Your task to perform on an android device: see sites visited before in the chrome app Image 0: 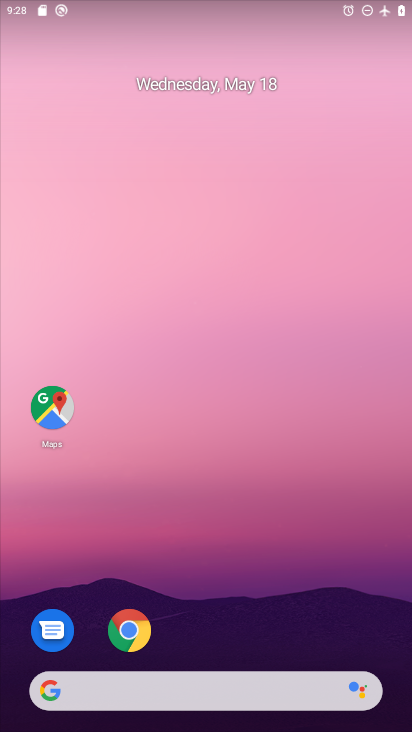
Step 0: drag from (177, 657) to (153, 16)
Your task to perform on an android device: see sites visited before in the chrome app Image 1: 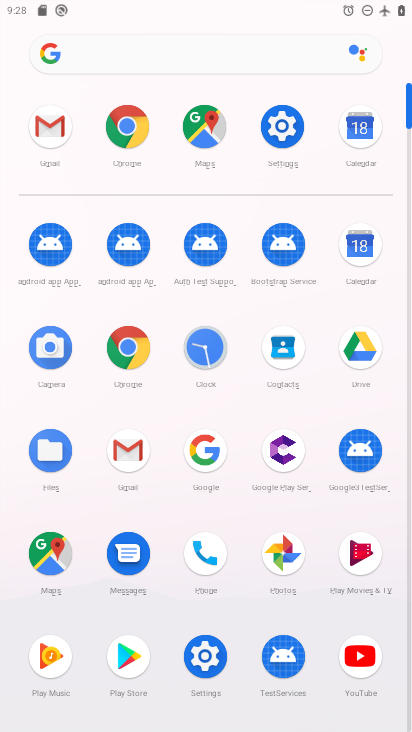
Step 1: click (123, 357)
Your task to perform on an android device: see sites visited before in the chrome app Image 2: 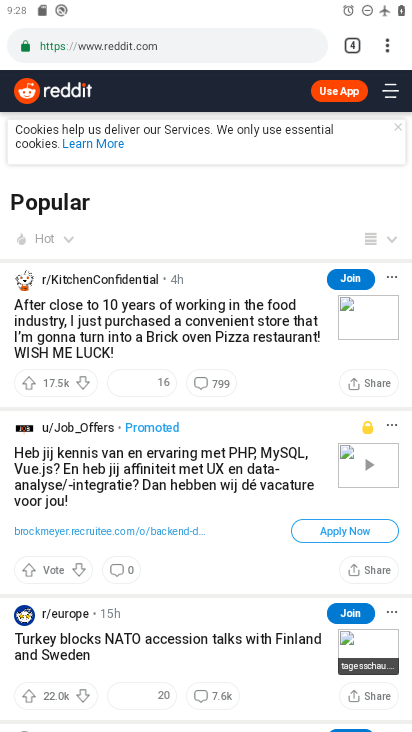
Step 2: click (389, 50)
Your task to perform on an android device: see sites visited before in the chrome app Image 3: 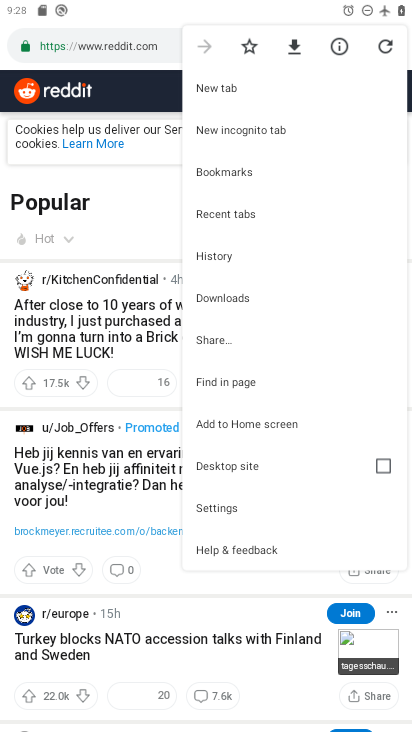
Step 3: click (238, 259)
Your task to perform on an android device: see sites visited before in the chrome app Image 4: 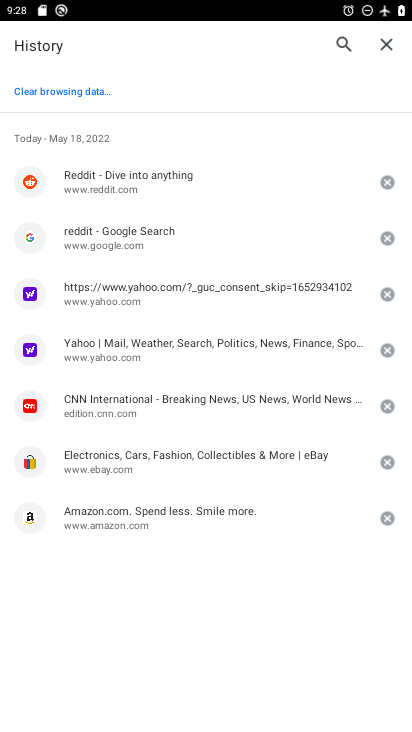
Step 4: task complete